Your task to perform on an android device: turn on airplane mode Image 0: 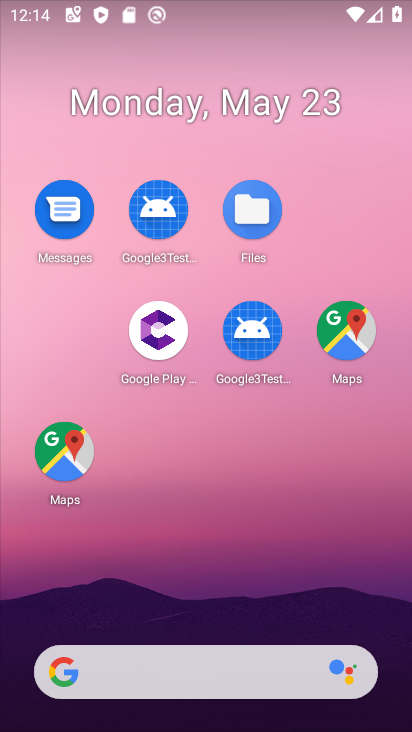
Step 0: click (296, 561)
Your task to perform on an android device: turn on airplane mode Image 1: 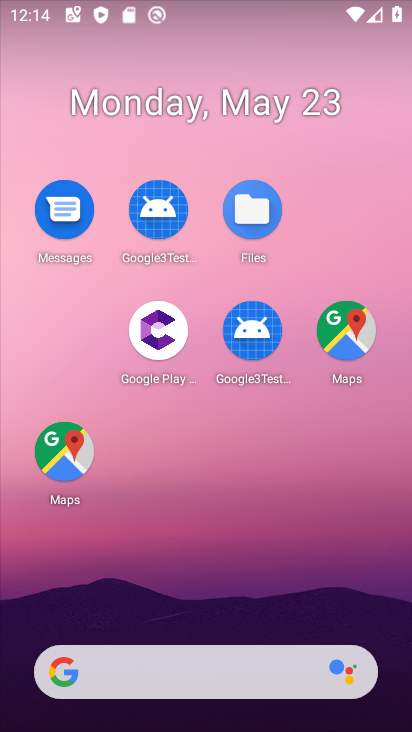
Step 1: drag from (297, 576) to (255, 171)
Your task to perform on an android device: turn on airplane mode Image 2: 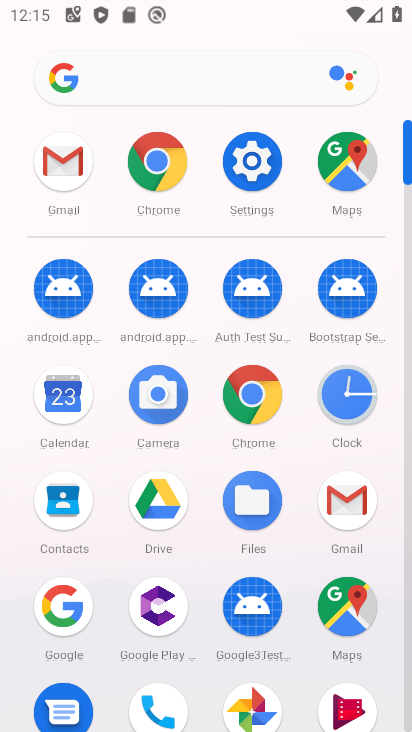
Step 2: click (253, 171)
Your task to perform on an android device: turn on airplane mode Image 3: 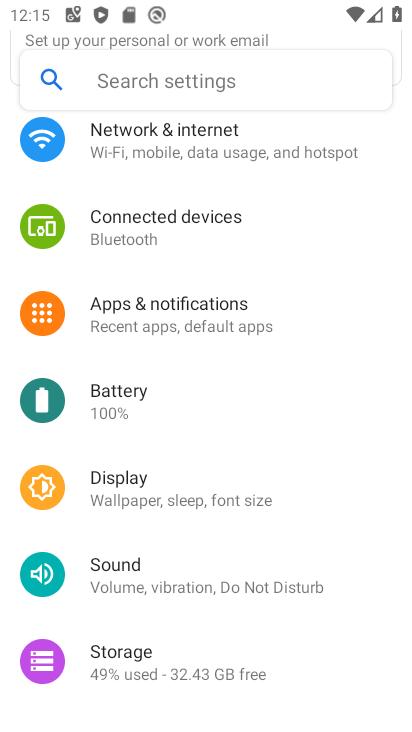
Step 3: click (212, 136)
Your task to perform on an android device: turn on airplane mode Image 4: 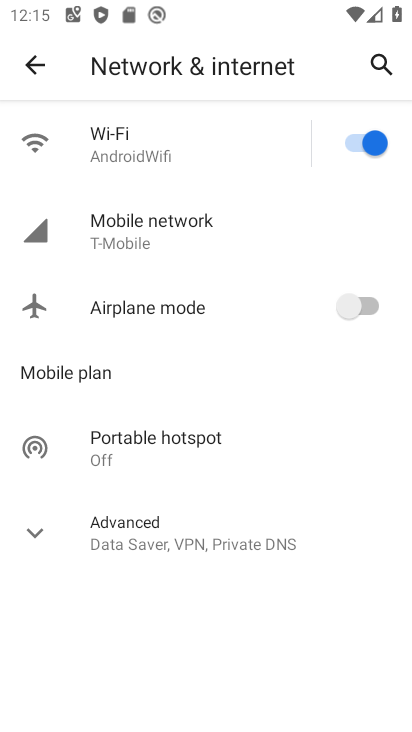
Step 4: click (354, 293)
Your task to perform on an android device: turn on airplane mode Image 5: 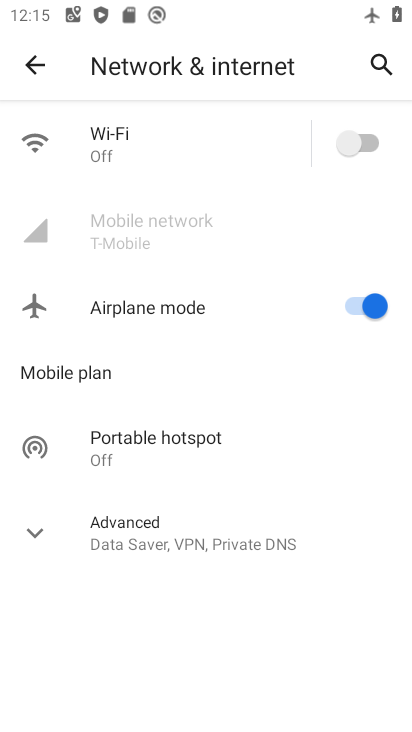
Step 5: task complete